Your task to perform on an android device: change your default location settings in chrome Image 0: 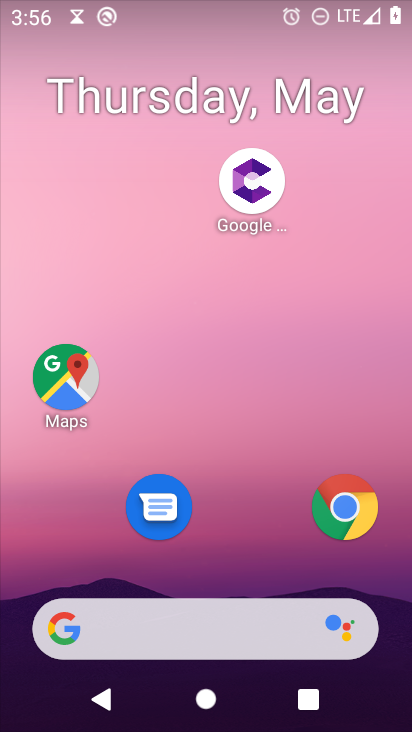
Step 0: click (347, 513)
Your task to perform on an android device: change your default location settings in chrome Image 1: 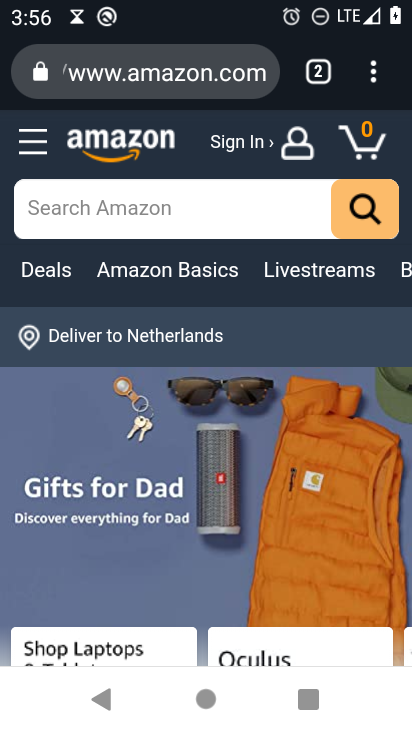
Step 1: drag from (370, 66) to (153, 513)
Your task to perform on an android device: change your default location settings in chrome Image 2: 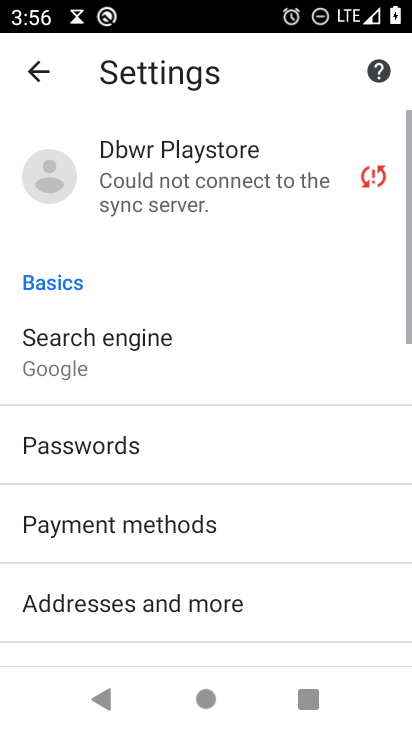
Step 2: drag from (301, 588) to (309, 267)
Your task to perform on an android device: change your default location settings in chrome Image 3: 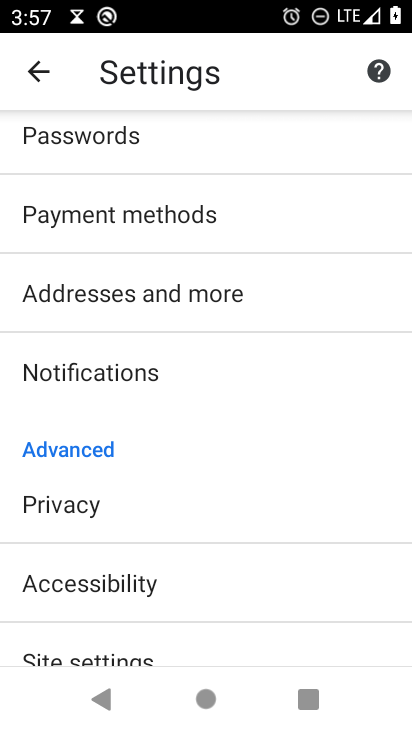
Step 3: drag from (248, 615) to (246, 438)
Your task to perform on an android device: change your default location settings in chrome Image 4: 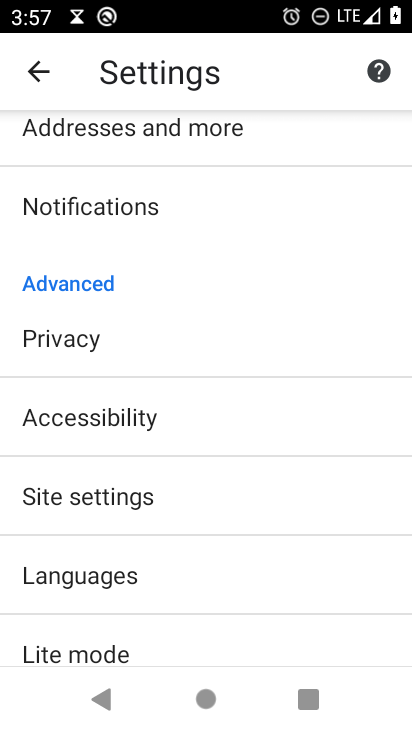
Step 4: click (59, 497)
Your task to perform on an android device: change your default location settings in chrome Image 5: 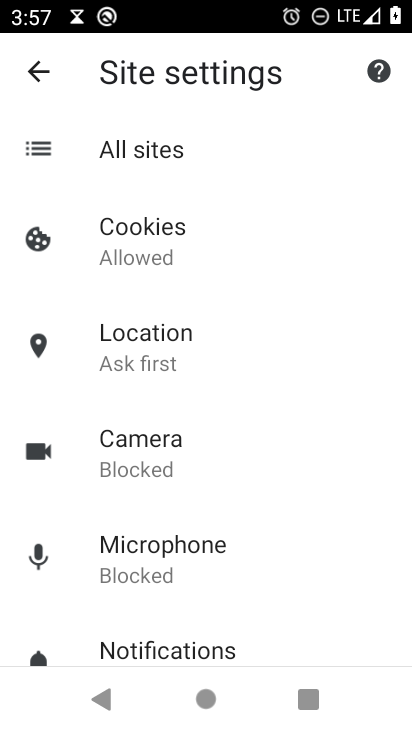
Step 5: click (120, 343)
Your task to perform on an android device: change your default location settings in chrome Image 6: 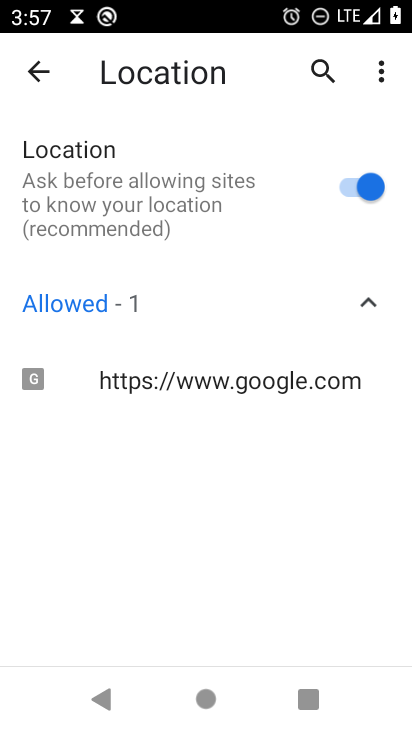
Step 6: click (369, 178)
Your task to perform on an android device: change your default location settings in chrome Image 7: 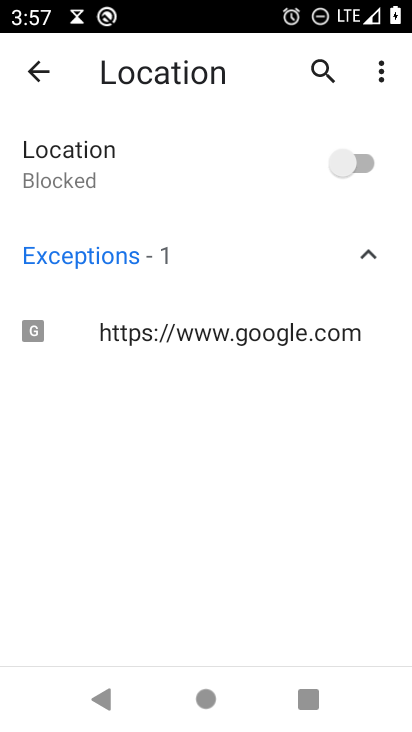
Step 7: task complete